Your task to perform on an android device: allow cookies in the chrome app Image 0: 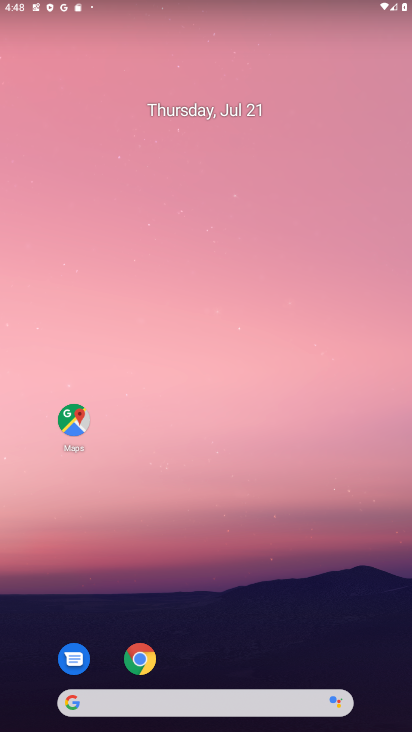
Step 0: press home button
Your task to perform on an android device: allow cookies in the chrome app Image 1: 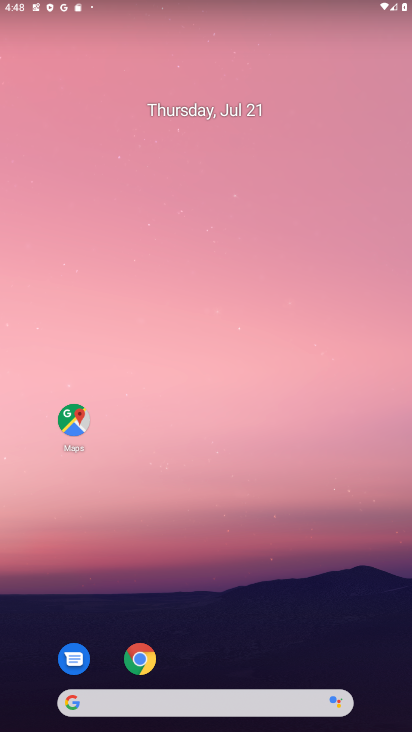
Step 1: click (143, 656)
Your task to perform on an android device: allow cookies in the chrome app Image 2: 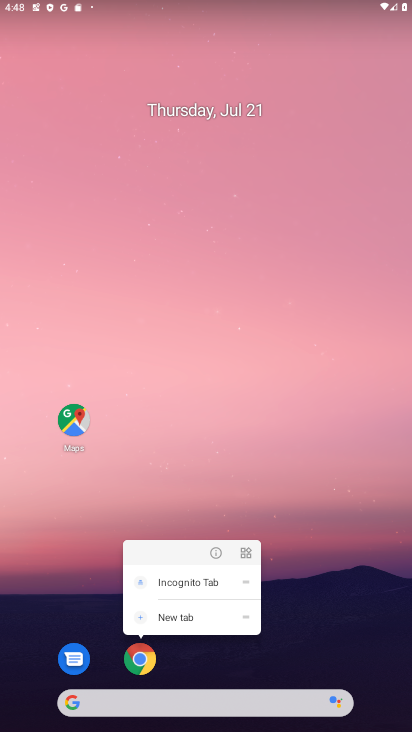
Step 2: click (279, 442)
Your task to perform on an android device: allow cookies in the chrome app Image 3: 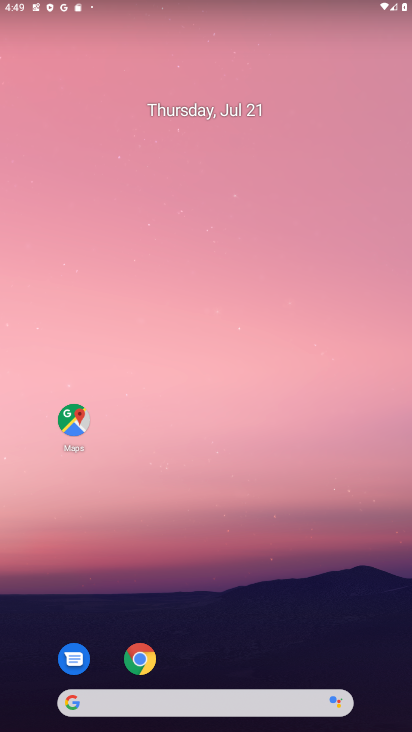
Step 3: click (145, 659)
Your task to perform on an android device: allow cookies in the chrome app Image 4: 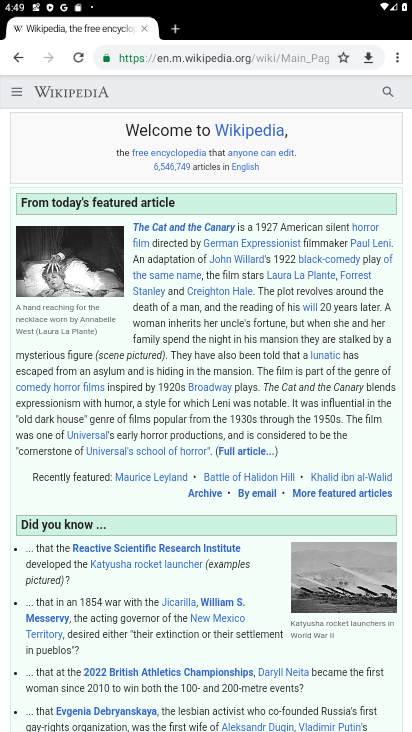
Step 4: click (400, 60)
Your task to perform on an android device: allow cookies in the chrome app Image 5: 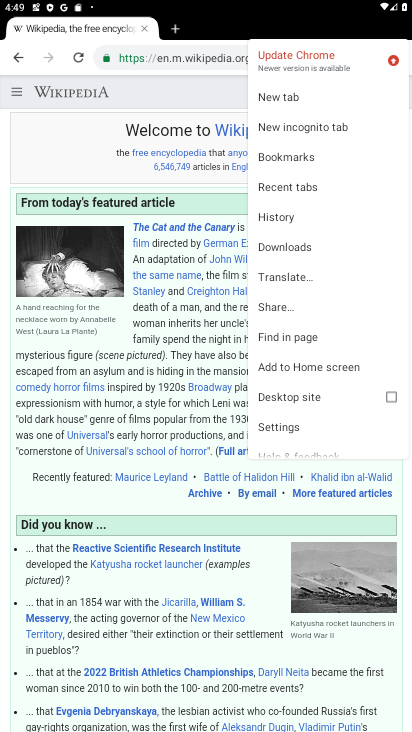
Step 5: click (282, 428)
Your task to perform on an android device: allow cookies in the chrome app Image 6: 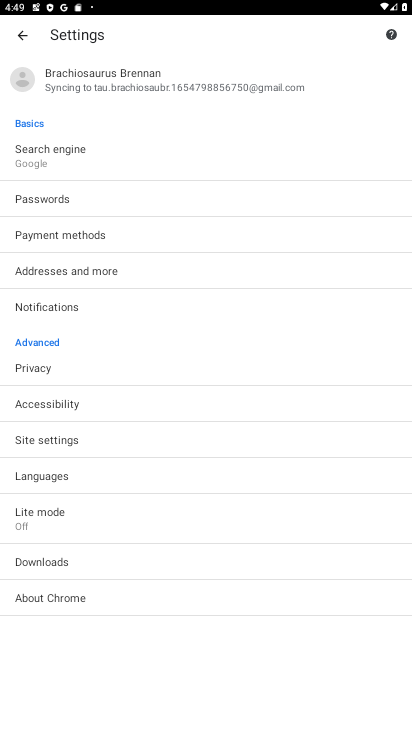
Step 6: click (48, 436)
Your task to perform on an android device: allow cookies in the chrome app Image 7: 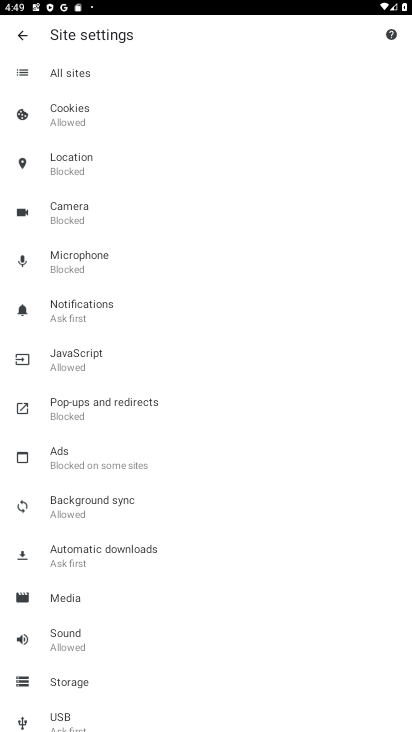
Step 7: click (85, 113)
Your task to perform on an android device: allow cookies in the chrome app Image 8: 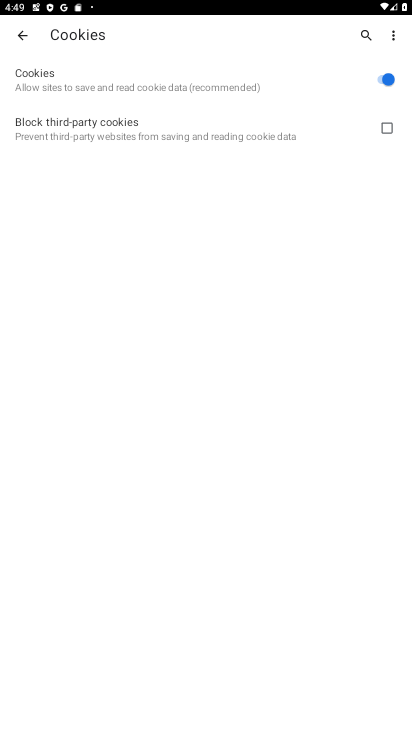
Step 8: task complete